Your task to perform on an android device: check storage Image 0: 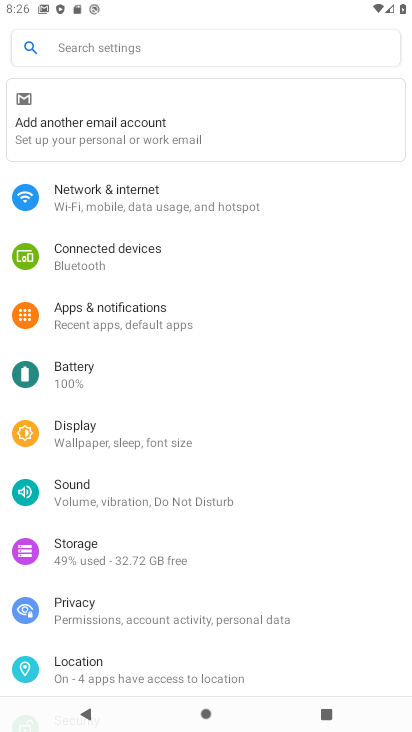
Step 0: press home button
Your task to perform on an android device: check storage Image 1: 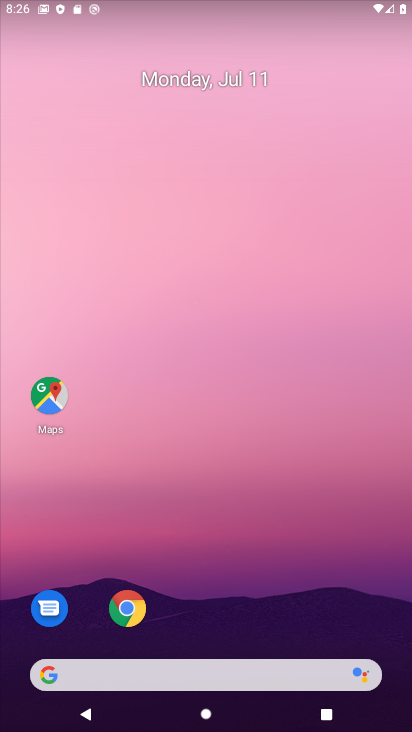
Step 1: drag from (240, 600) to (317, 9)
Your task to perform on an android device: check storage Image 2: 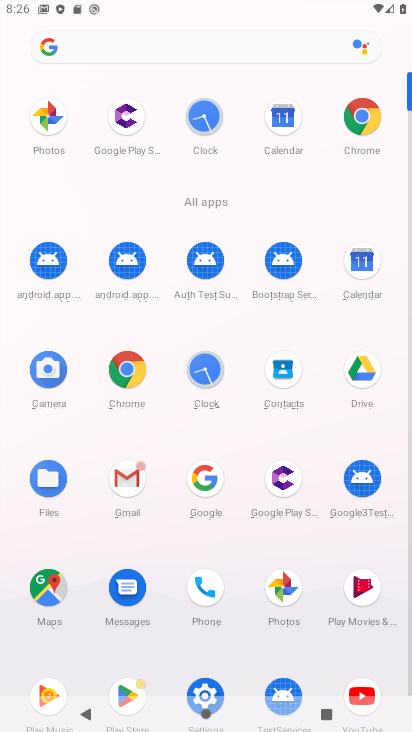
Step 2: drag from (278, 275) to (254, 0)
Your task to perform on an android device: check storage Image 3: 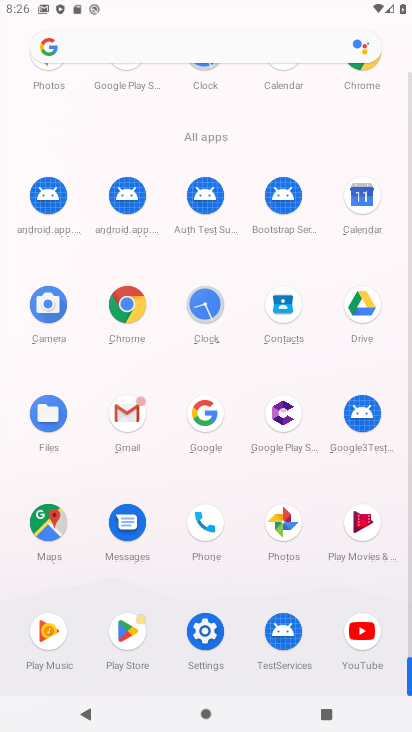
Step 3: click (215, 630)
Your task to perform on an android device: check storage Image 4: 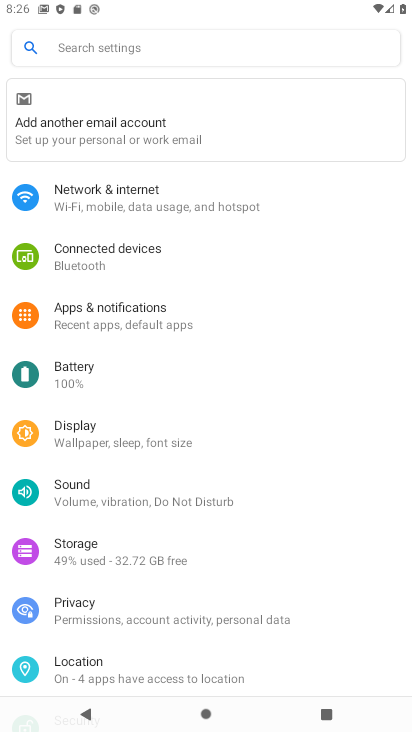
Step 4: click (102, 562)
Your task to perform on an android device: check storage Image 5: 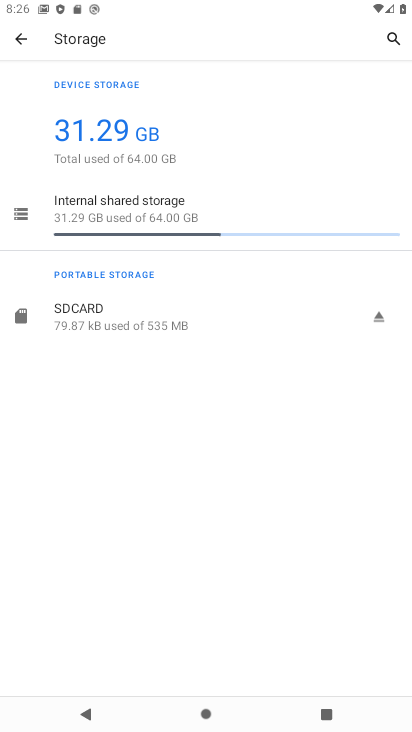
Step 5: task complete